Your task to perform on an android device: add a label to a message in the gmail app Image 0: 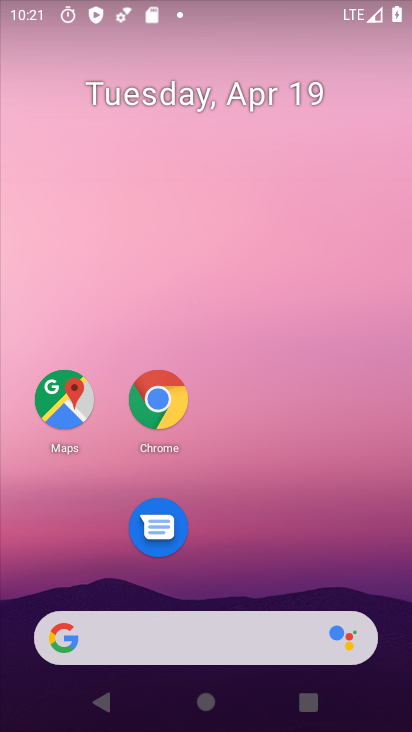
Step 0: drag from (256, 661) to (334, 214)
Your task to perform on an android device: add a label to a message in the gmail app Image 1: 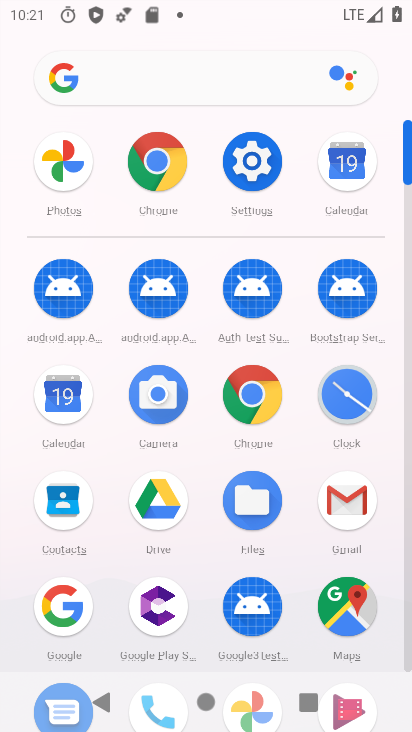
Step 1: click (337, 484)
Your task to perform on an android device: add a label to a message in the gmail app Image 2: 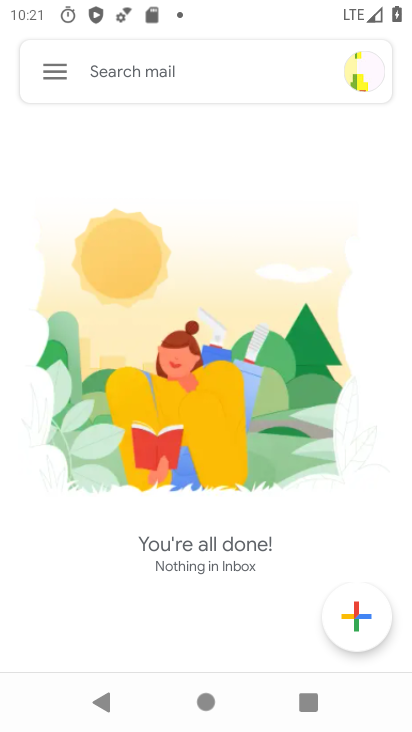
Step 2: click (53, 72)
Your task to perform on an android device: add a label to a message in the gmail app Image 3: 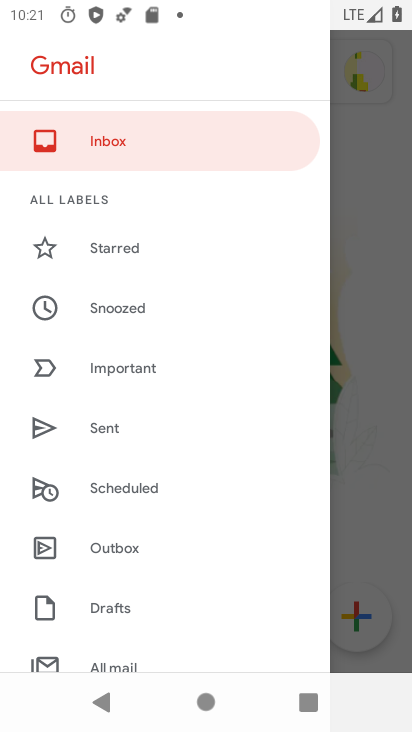
Step 3: drag from (58, 596) to (283, 169)
Your task to perform on an android device: add a label to a message in the gmail app Image 4: 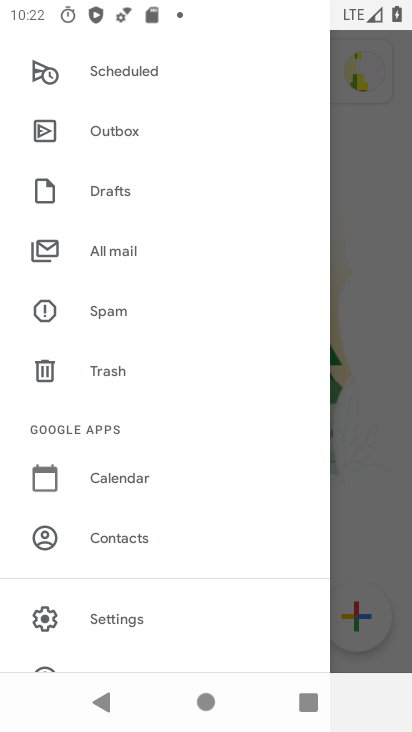
Step 4: click (114, 619)
Your task to perform on an android device: add a label to a message in the gmail app Image 5: 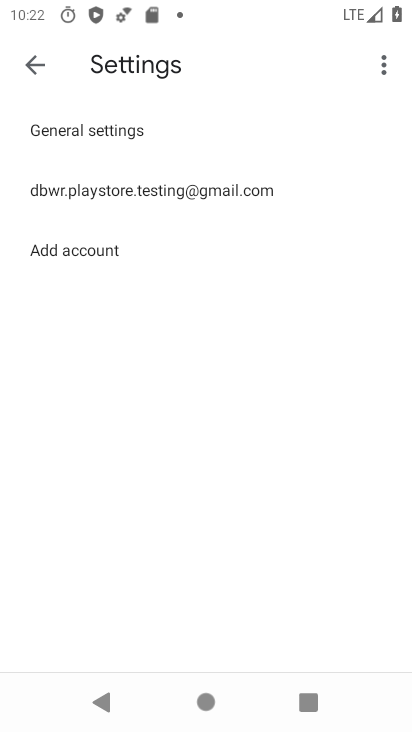
Step 5: click (116, 195)
Your task to perform on an android device: add a label to a message in the gmail app Image 6: 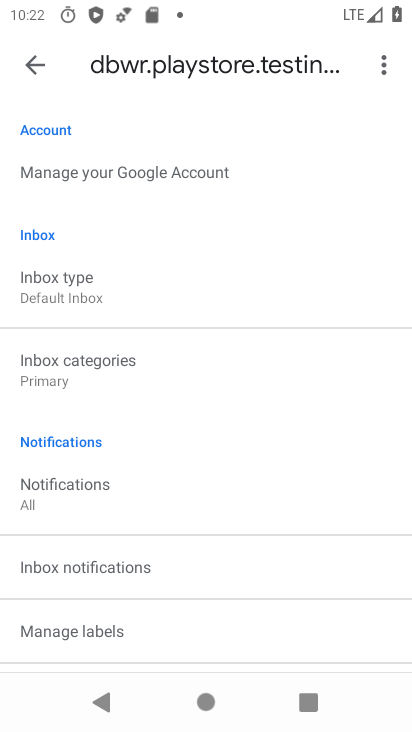
Step 6: click (75, 629)
Your task to perform on an android device: add a label to a message in the gmail app Image 7: 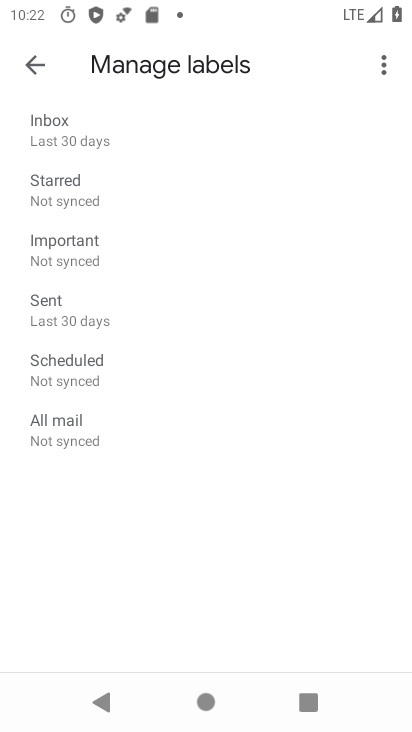
Step 7: click (143, 199)
Your task to perform on an android device: add a label to a message in the gmail app Image 8: 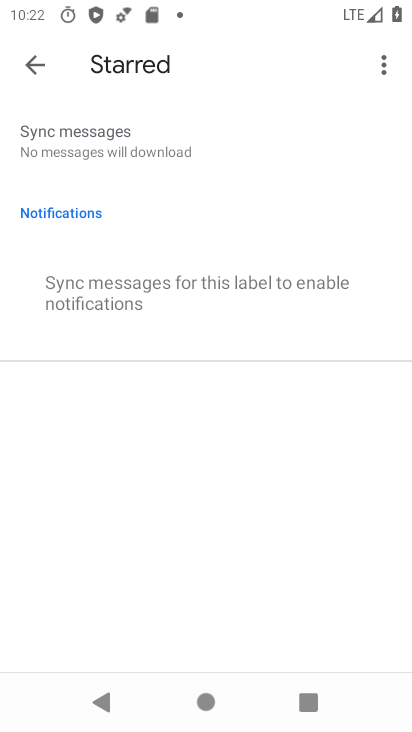
Step 8: task complete